Your task to perform on an android device: change the clock display to analog Image 0: 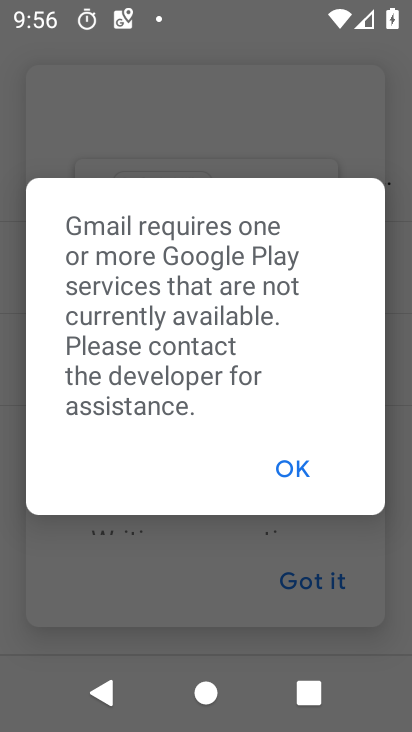
Step 0: press home button
Your task to perform on an android device: change the clock display to analog Image 1: 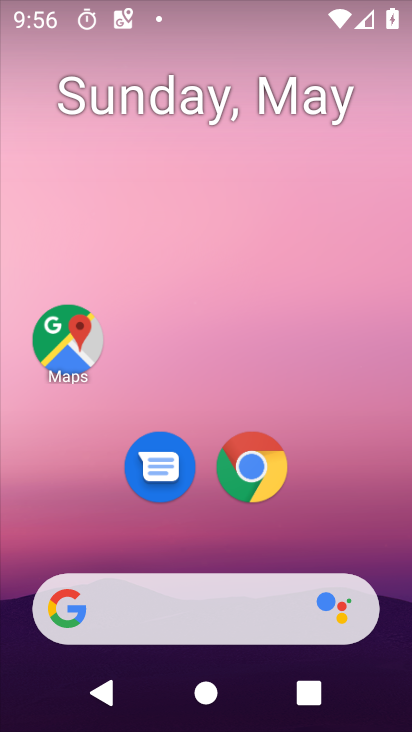
Step 1: drag from (205, 525) to (187, 195)
Your task to perform on an android device: change the clock display to analog Image 2: 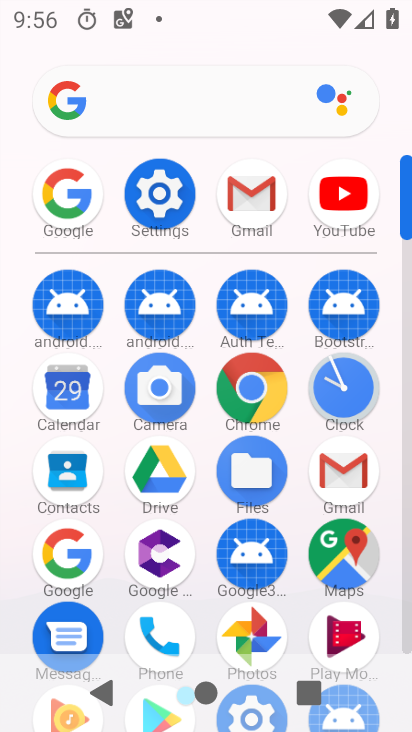
Step 2: click (337, 380)
Your task to perform on an android device: change the clock display to analog Image 3: 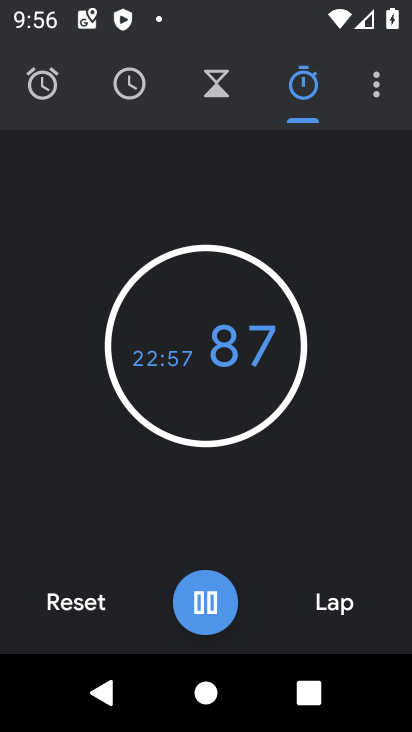
Step 3: click (367, 81)
Your task to perform on an android device: change the clock display to analog Image 4: 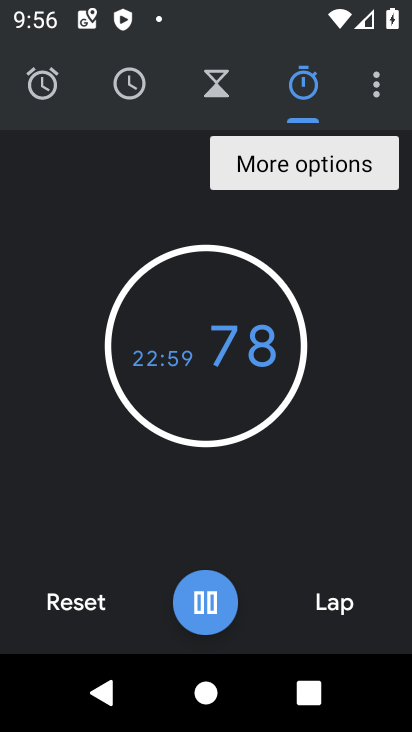
Step 4: click (367, 83)
Your task to perform on an android device: change the clock display to analog Image 5: 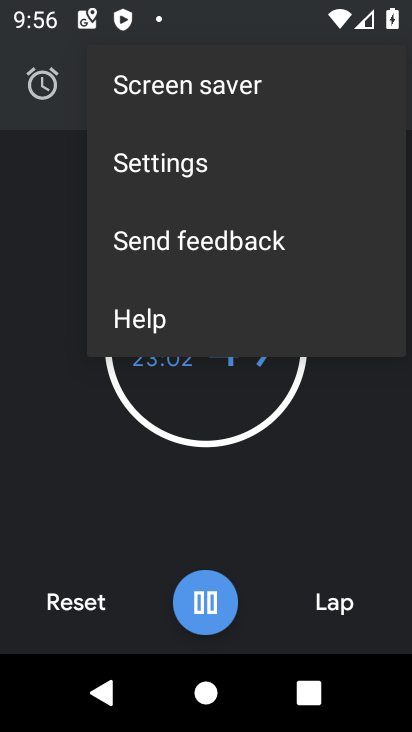
Step 5: click (168, 180)
Your task to perform on an android device: change the clock display to analog Image 6: 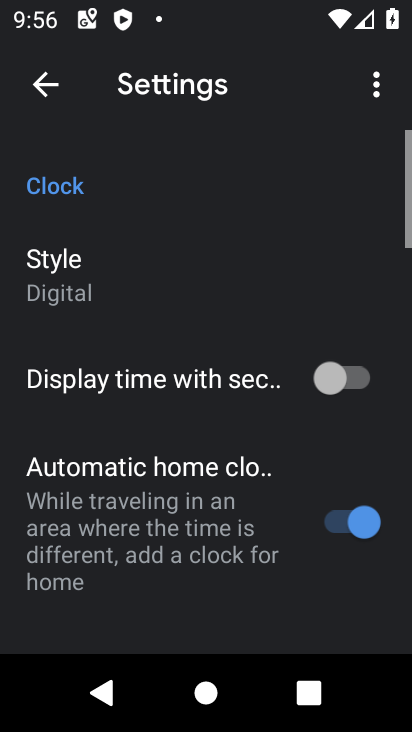
Step 6: click (101, 252)
Your task to perform on an android device: change the clock display to analog Image 7: 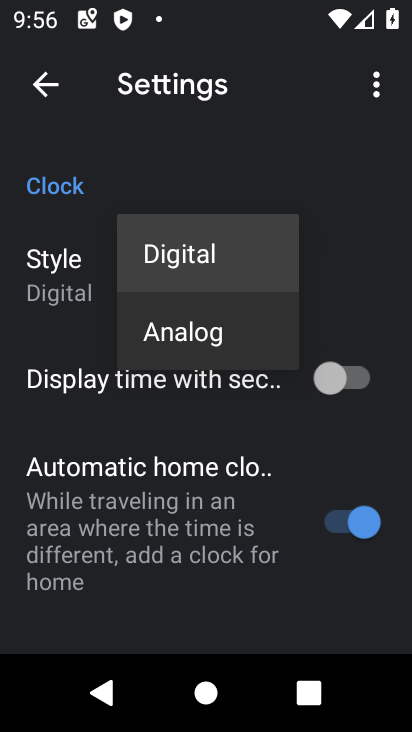
Step 7: click (163, 309)
Your task to perform on an android device: change the clock display to analog Image 8: 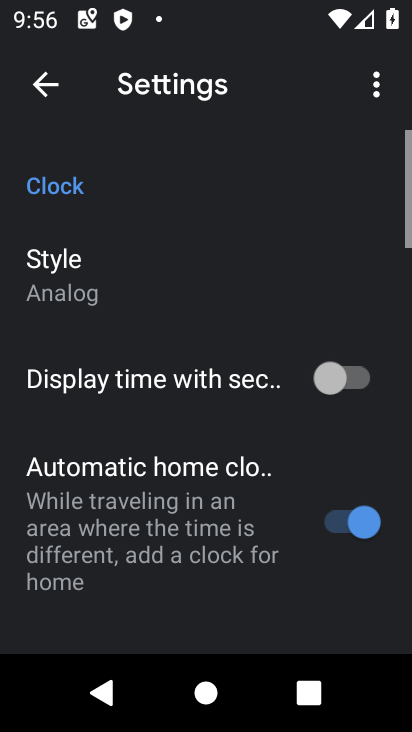
Step 8: task complete